Your task to perform on an android device: Search for vegetarian restaurants on Maps Image 0: 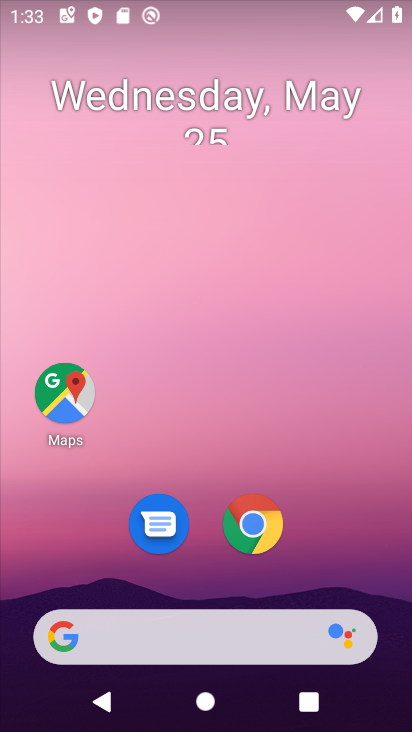
Step 0: click (58, 386)
Your task to perform on an android device: Search for vegetarian restaurants on Maps Image 1: 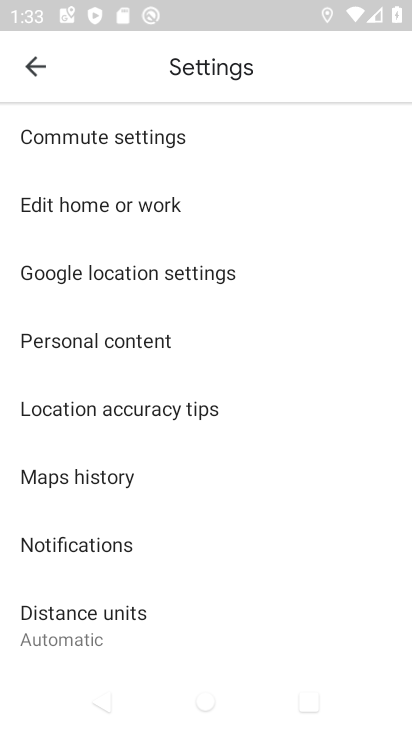
Step 1: click (27, 57)
Your task to perform on an android device: Search for vegetarian restaurants on Maps Image 2: 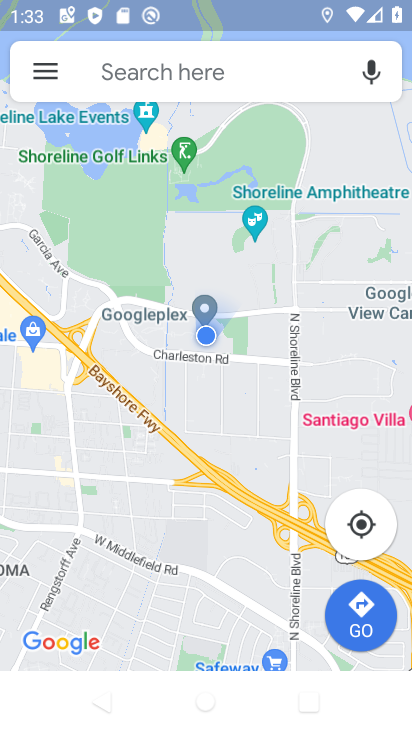
Step 2: click (158, 65)
Your task to perform on an android device: Search for vegetarian restaurants on Maps Image 3: 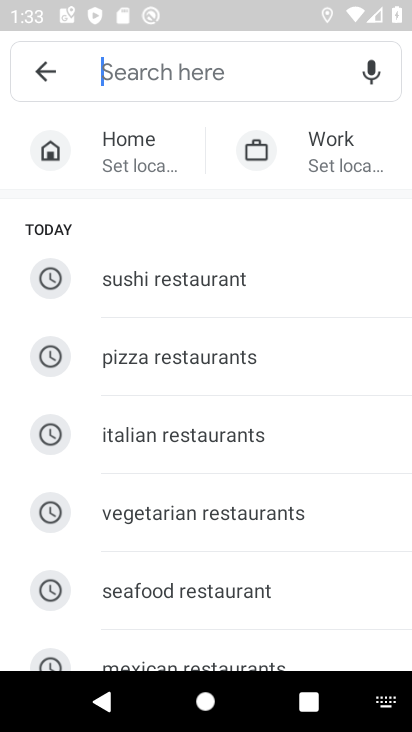
Step 3: click (237, 517)
Your task to perform on an android device: Search for vegetarian restaurants on Maps Image 4: 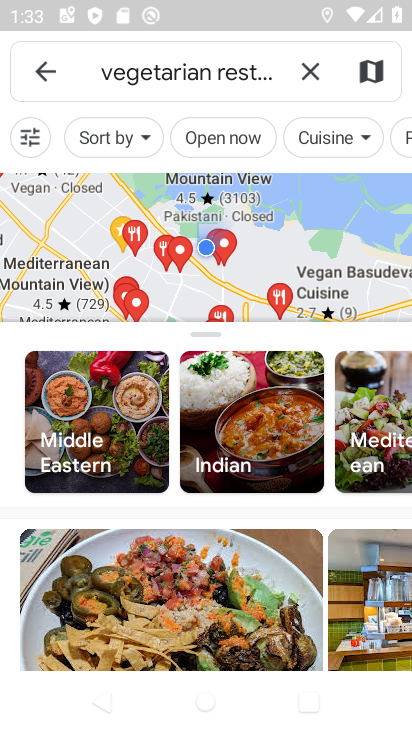
Step 4: task complete